Your task to perform on an android device: toggle sleep mode Image 0: 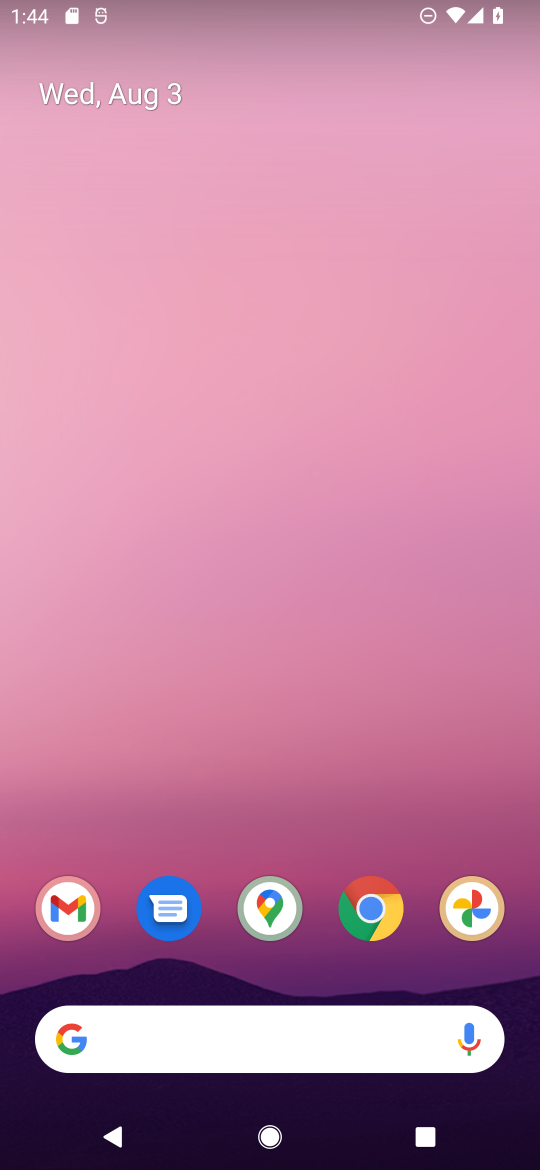
Step 0: drag from (311, 768) to (261, 17)
Your task to perform on an android device: toggle sleep mode Image 1: 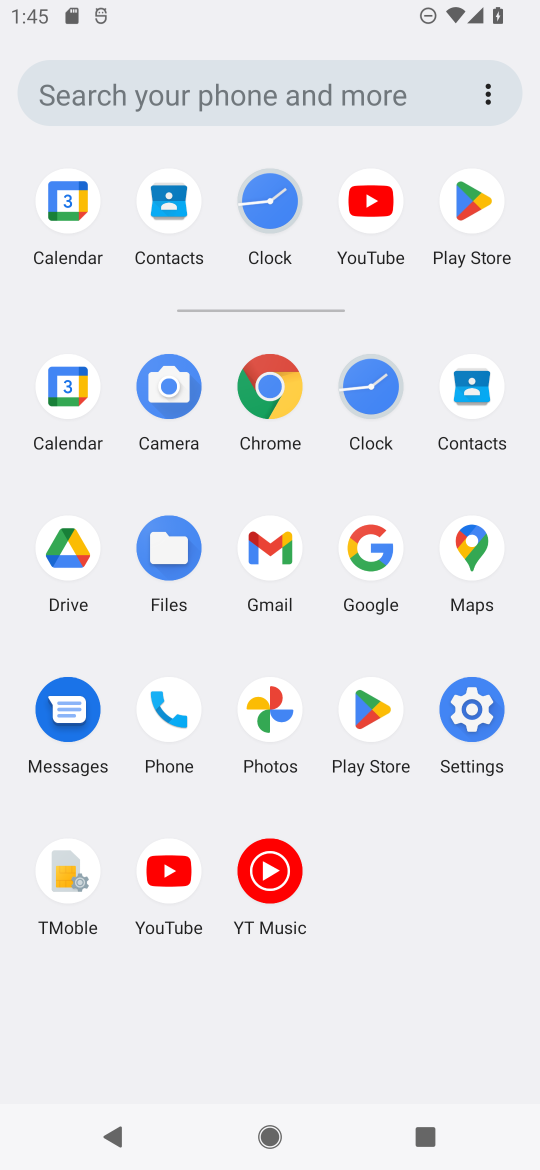
Step 1: task complete